Your task to perform on an android device: Open eBay Image 0: 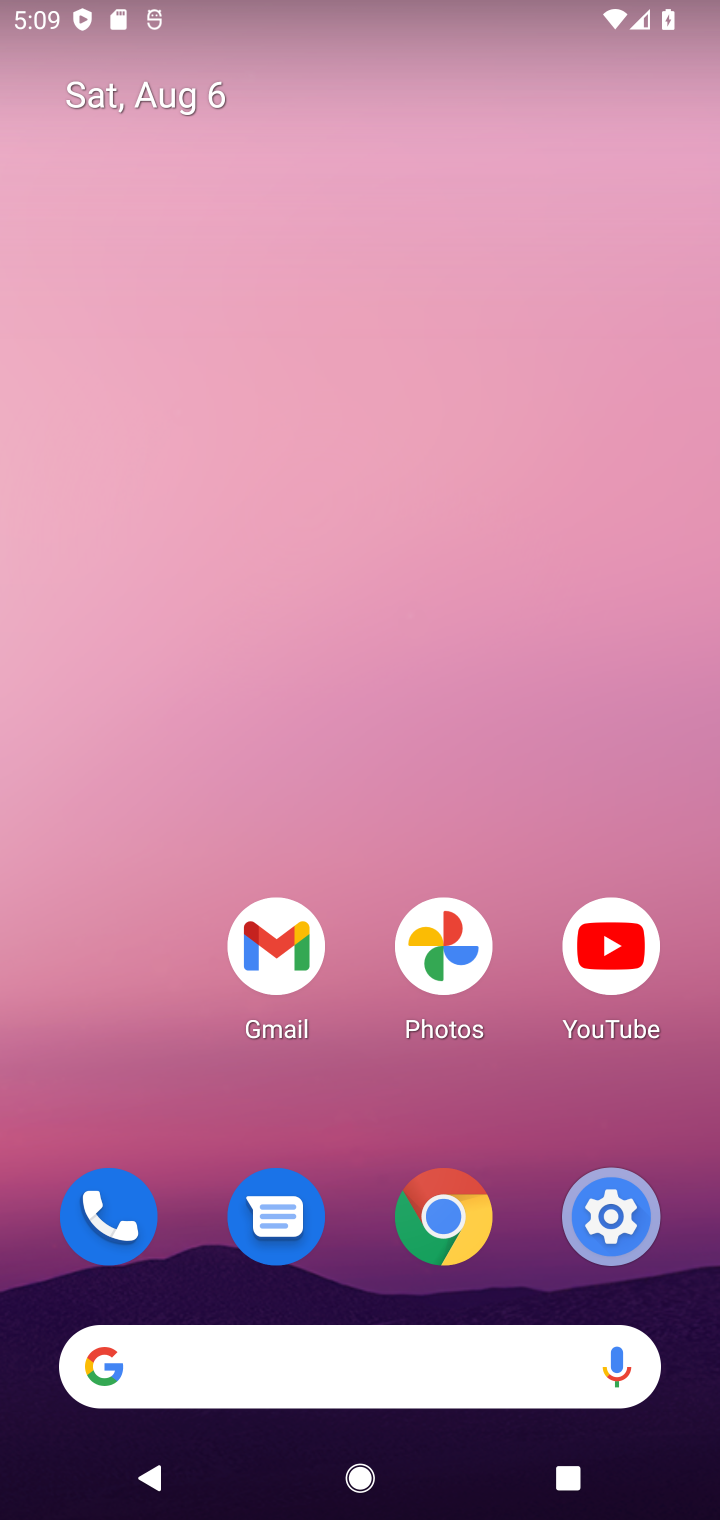
Step 0: drag from (282, 927) to (191, 38)
Your task to perform on an android device: Open eBay Image 1: 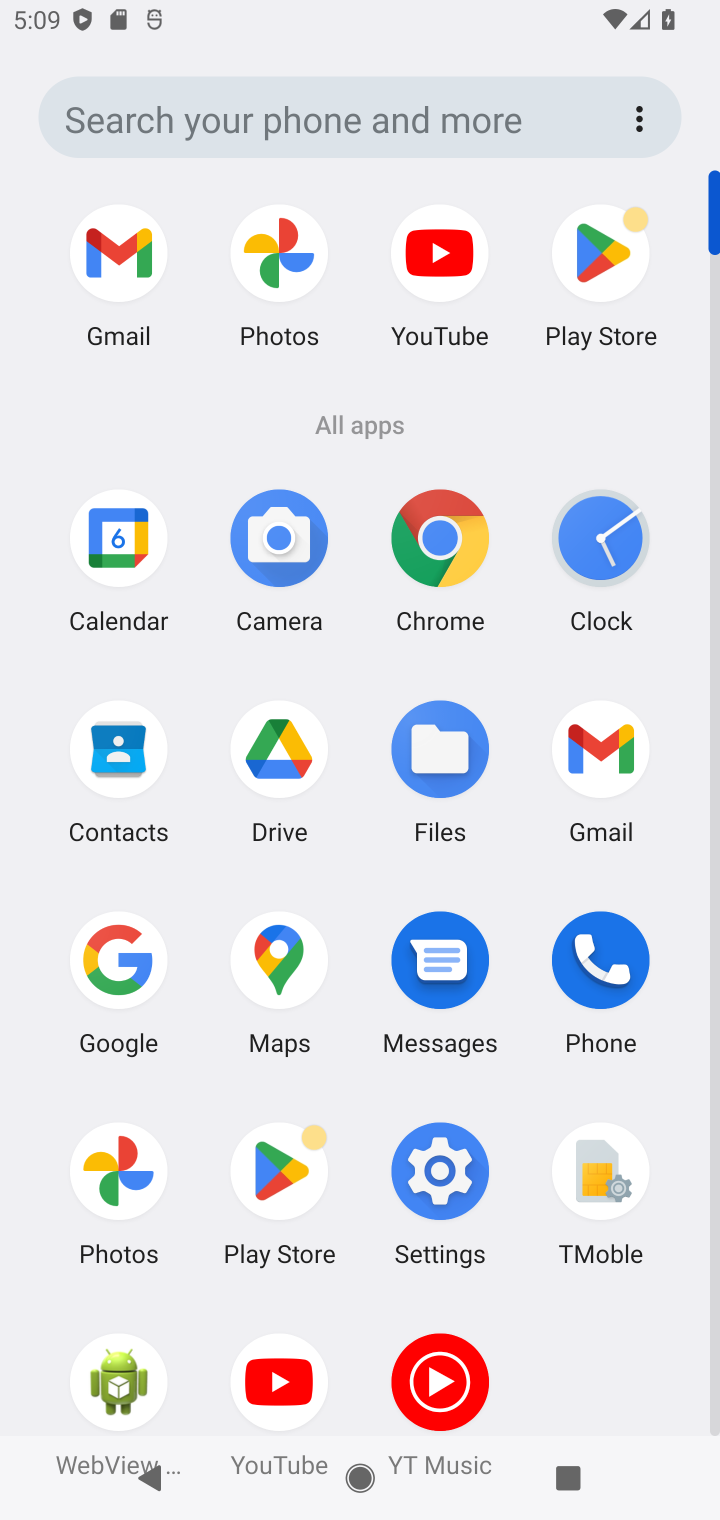
Step 1: click (441, 539)
Your task to perform on an android device: Open eBay Image 2: 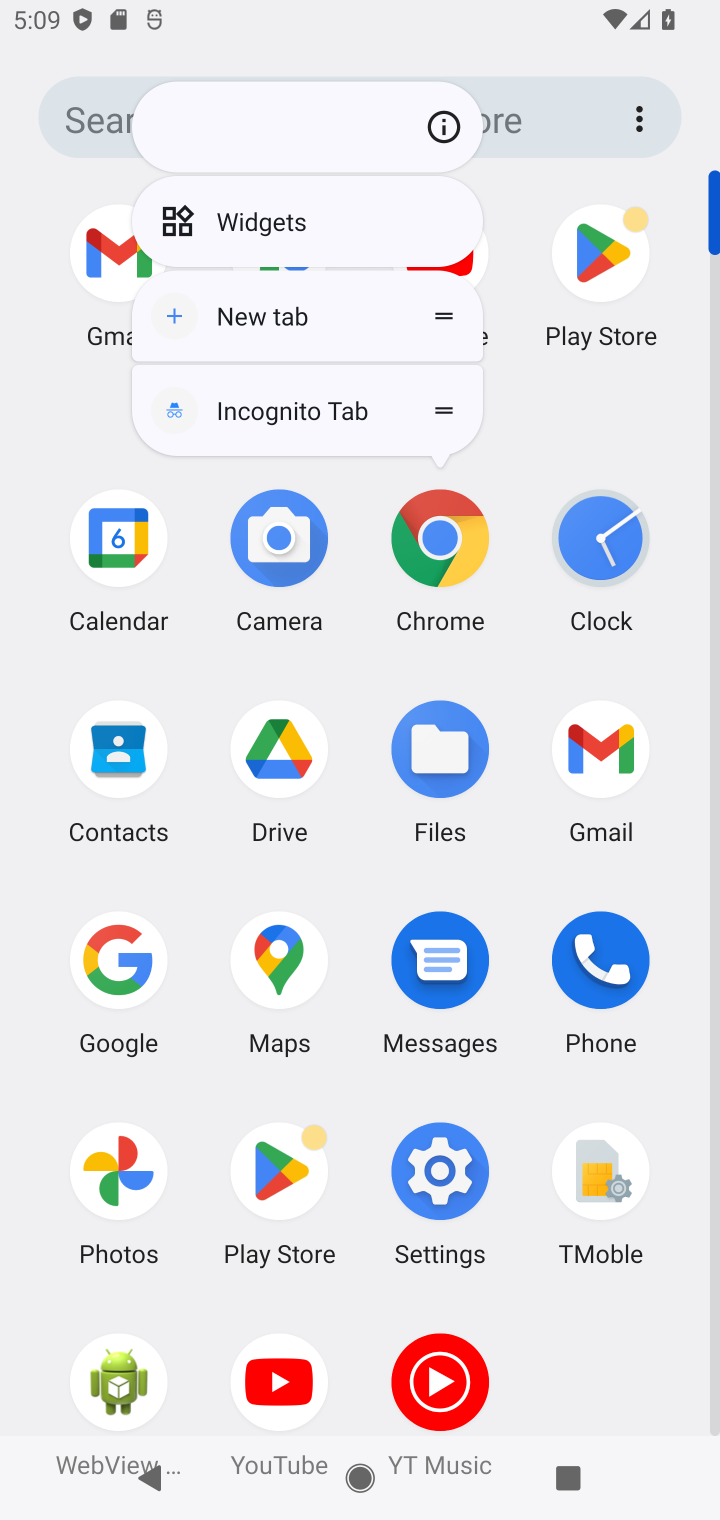
Step 2: click (438, 537)
Your task to perform on an android device: Open eBay Image 3: 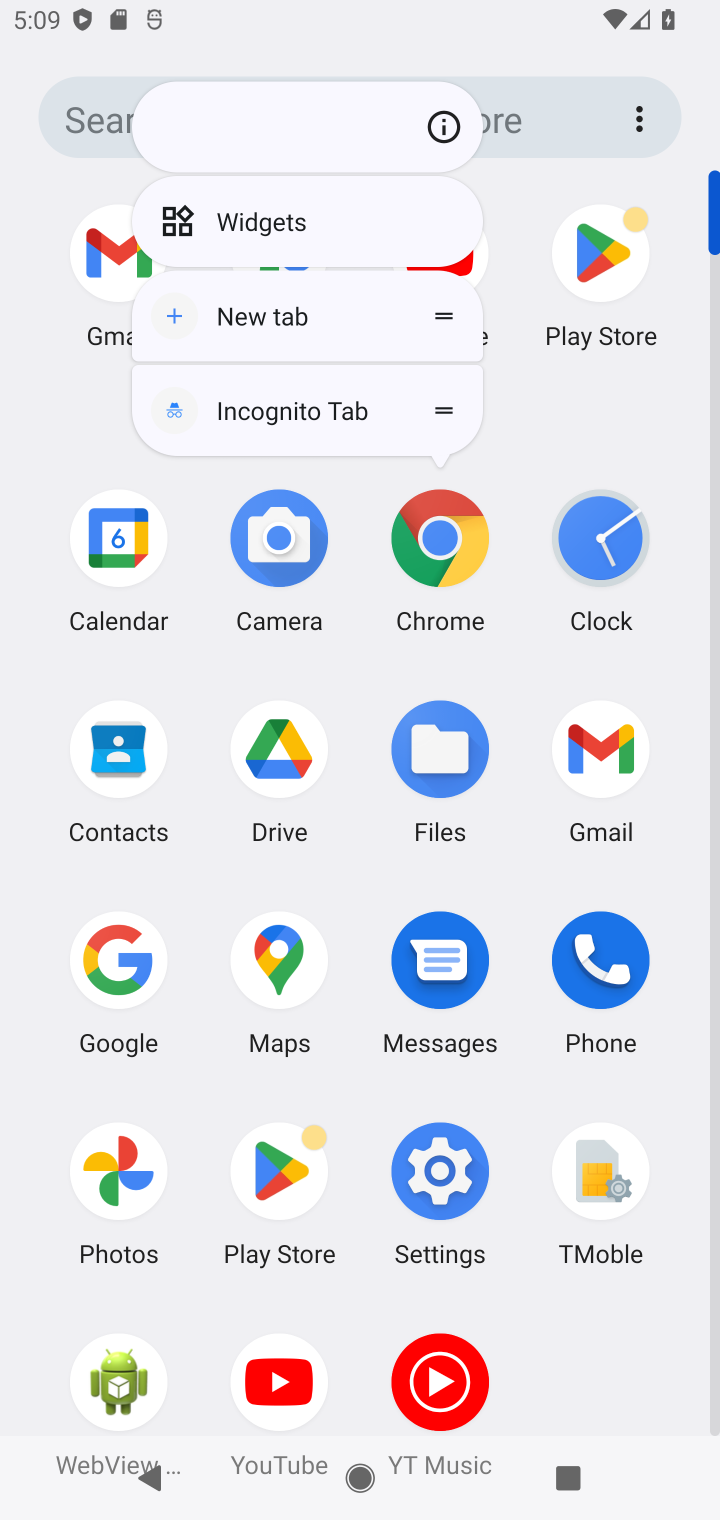
Step 3: click (438, 544)
Your task to perform on an android device: Open eBay Image 4: 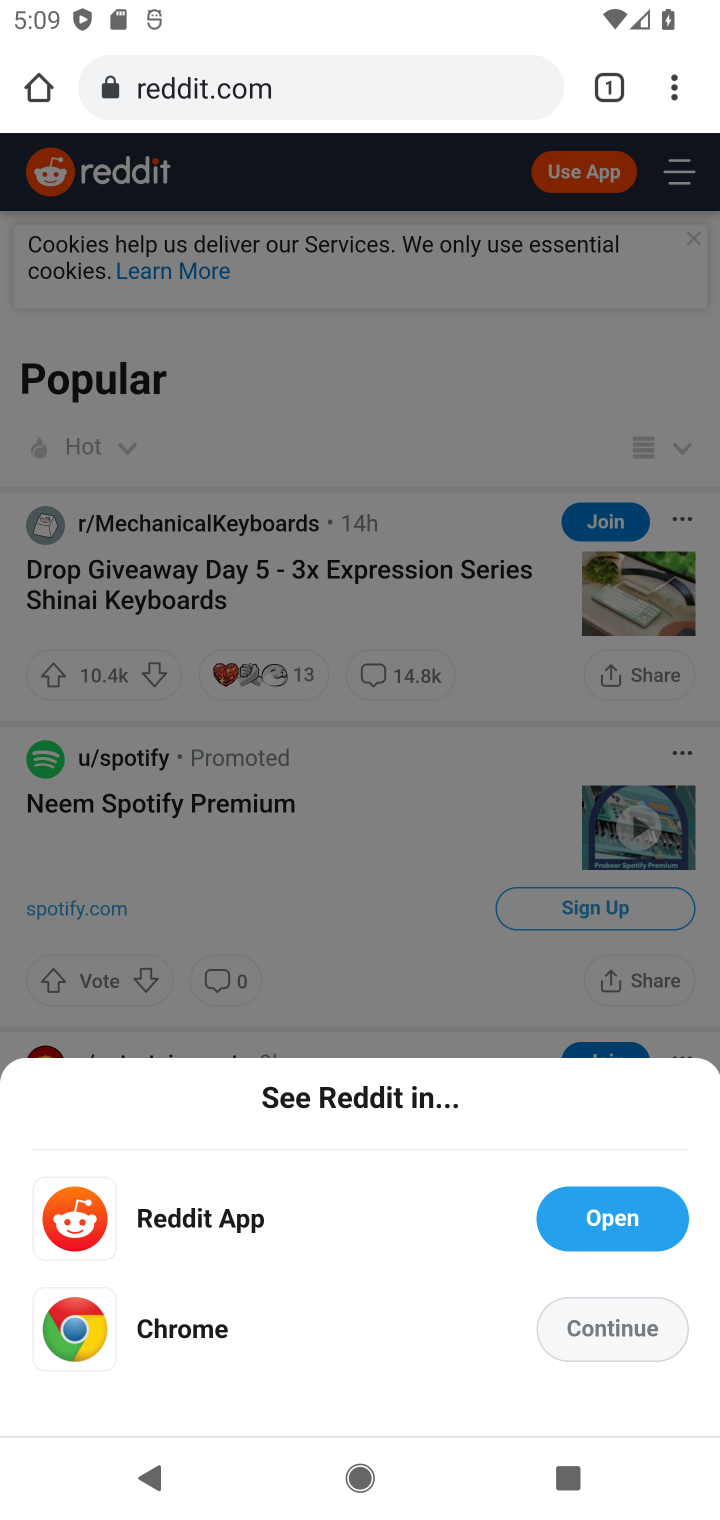
Step 4: click (362, 113)
Your task to perform on an android device: Open eBay Image 5: 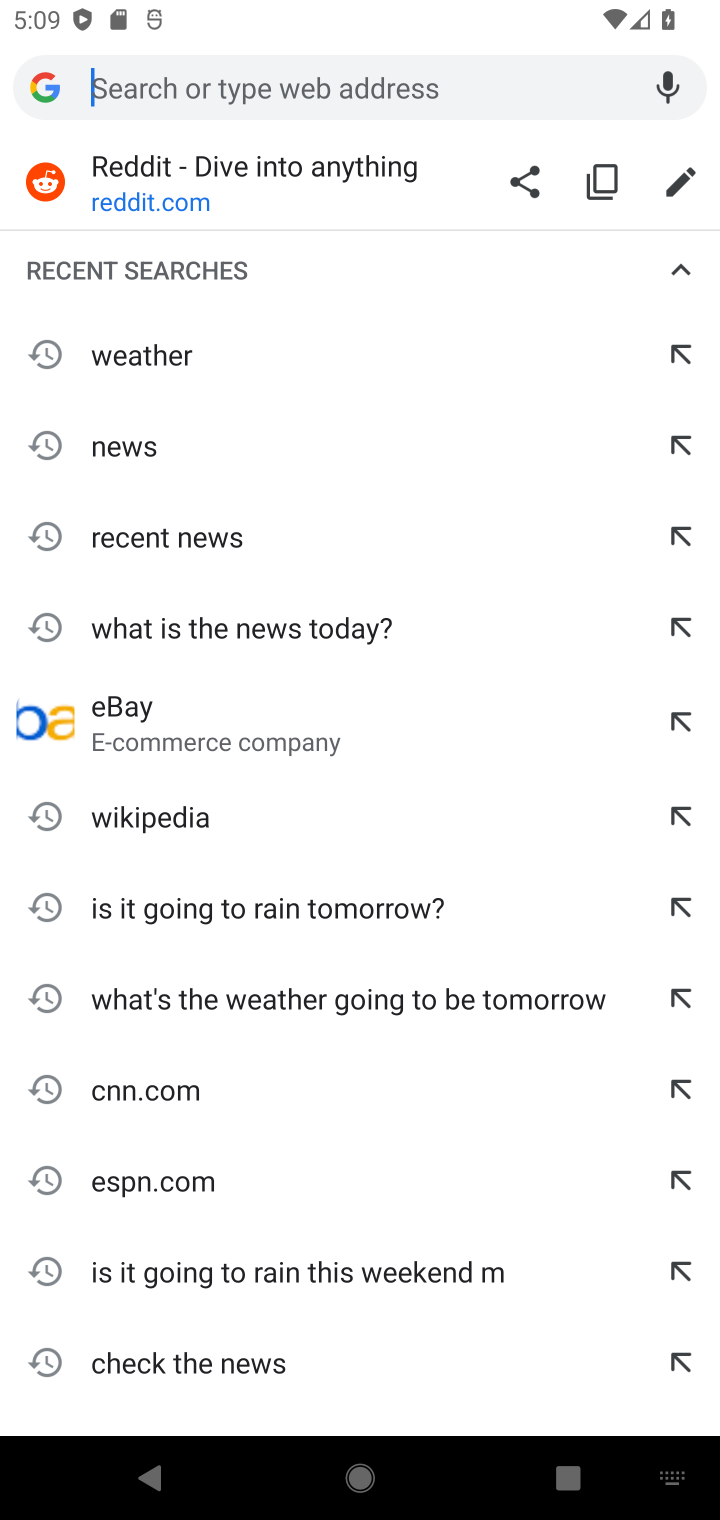
Step 5: type "ebay"
Your task to perform on an android device: Open eBay Image 6: 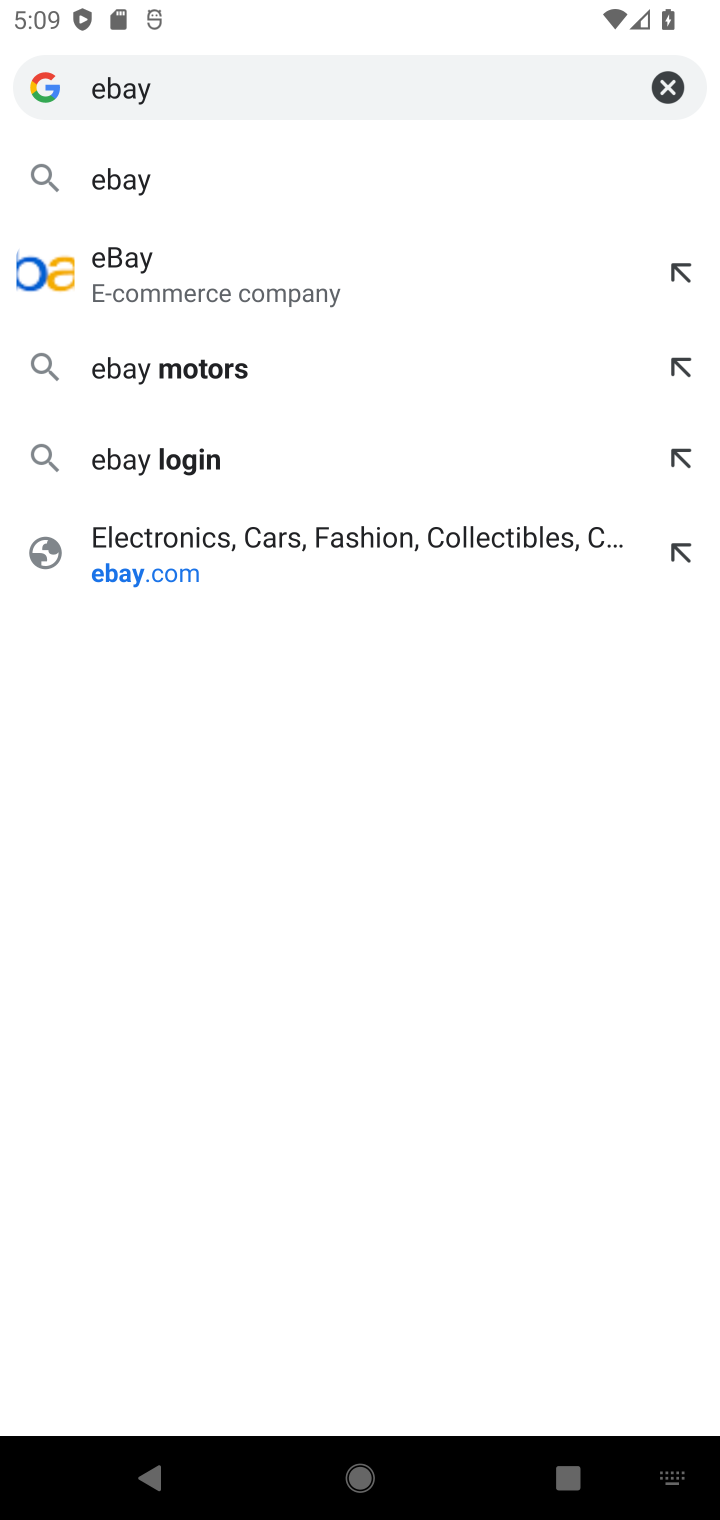
Step 6: click (172, 294)
Your task to perform on an android device: Open eBay Image 7: 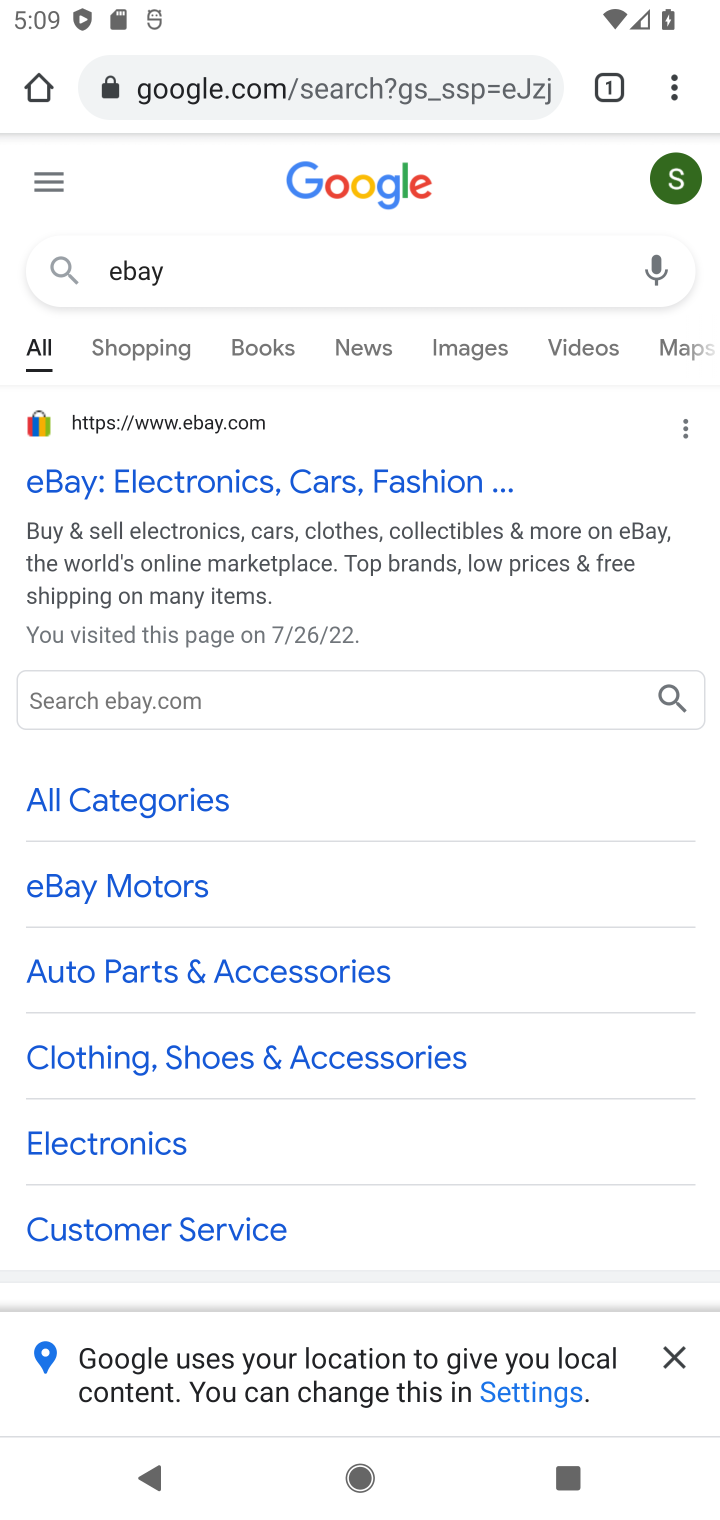
Step 7: click (276, 487)
Your task to perform on an android device: Open eBay Image 8: 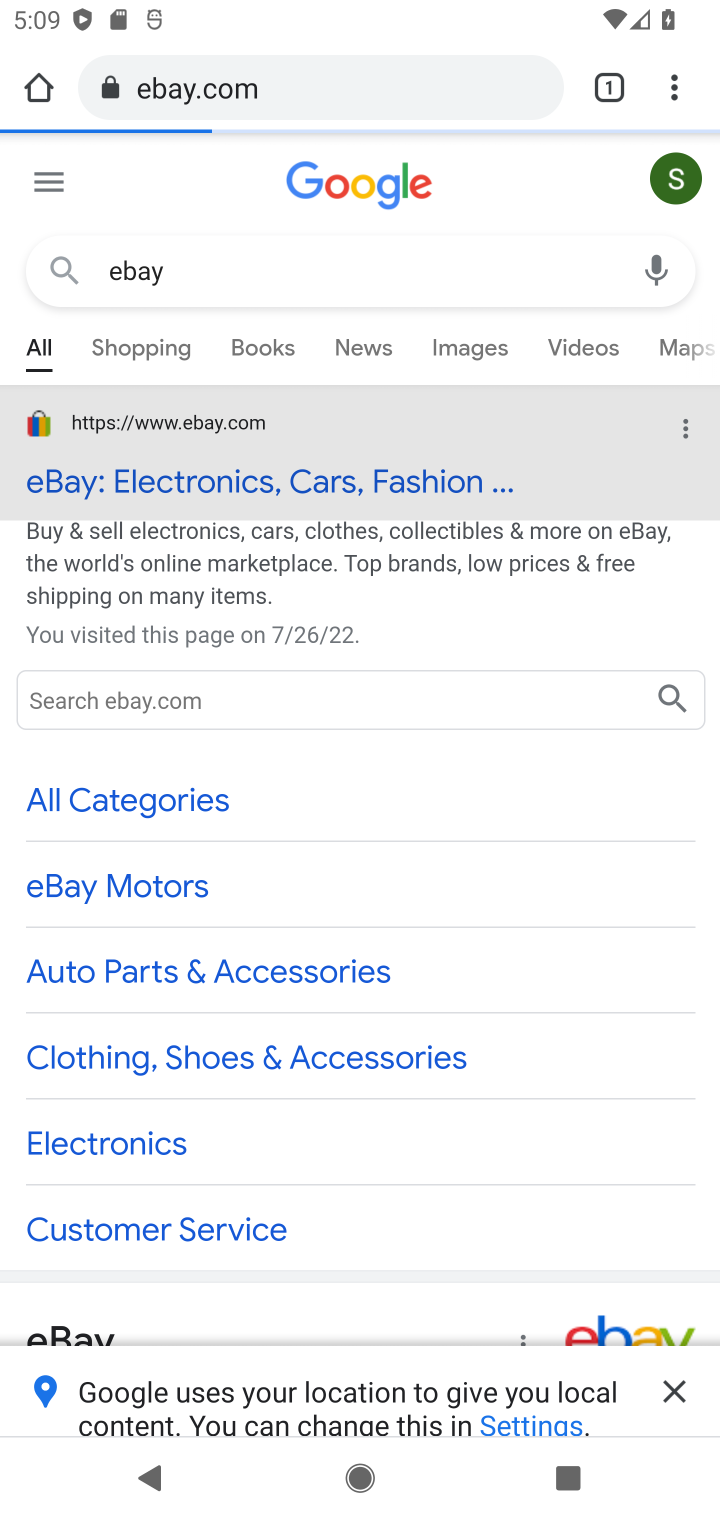
Step 8: click (276, 484)
Your task to perform on an android device: Open eBay Image 9: 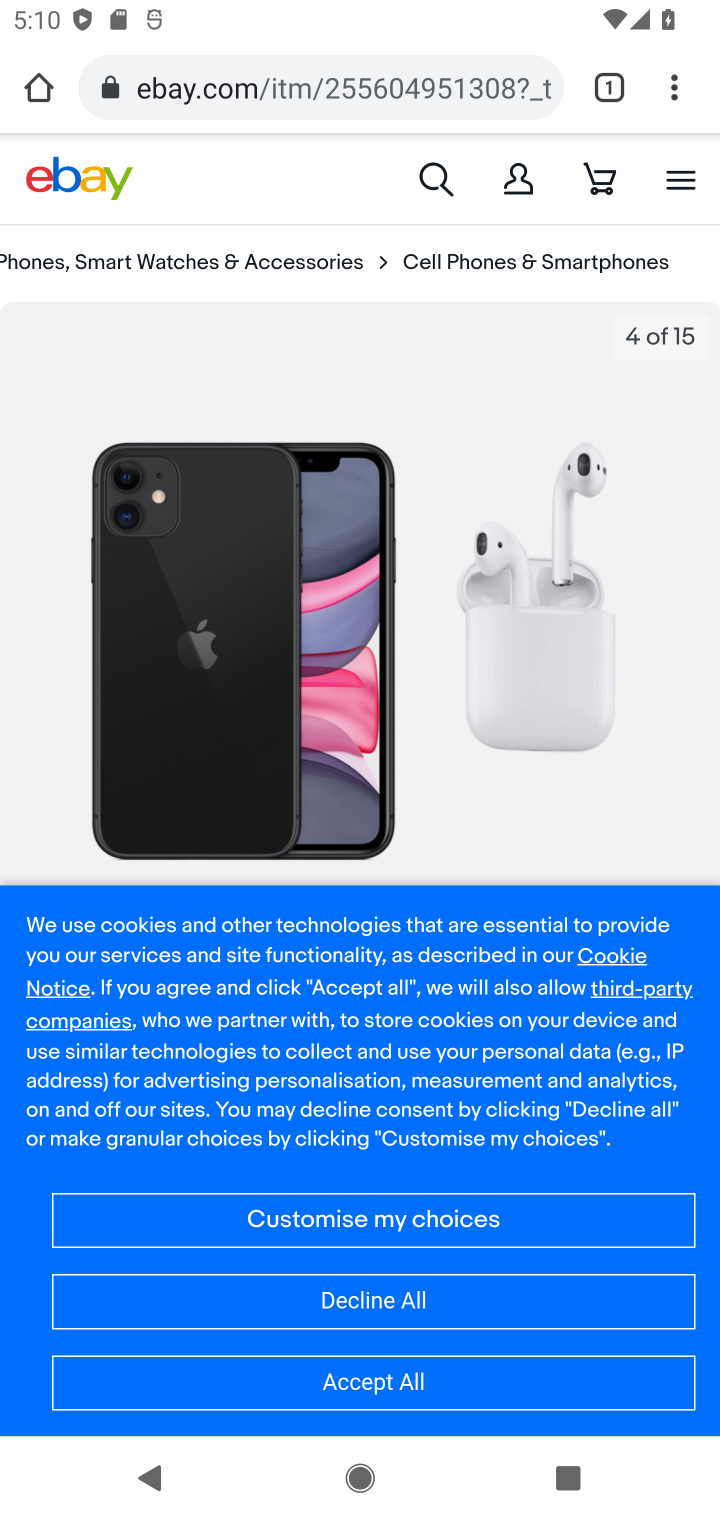
Step 9: task complete